Your task to perform on an android device: toggle pop-ups in chrome Image 0: 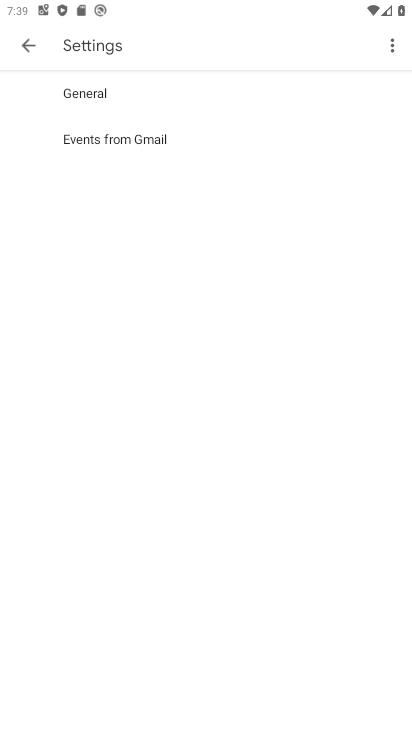
Step 0: press home button
Your task to perform on an android device: toggle pop-ups in chrome Image 1: 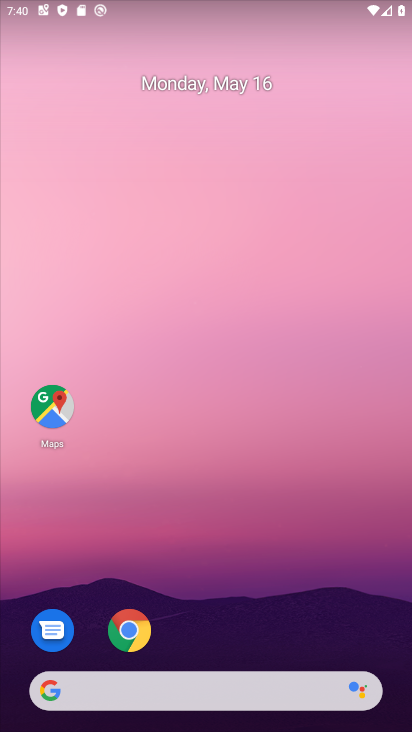
Step 1: click (145, 635)
Your task to perform on an android device: toggle pop-ups in chrome Image 2: 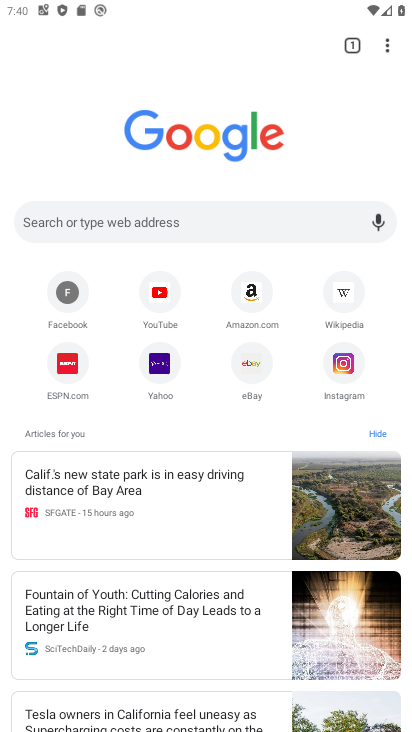
Step 2: click (384, 36)
Your task to perform on an android device: toggle pop-ups in chrome Image 3: 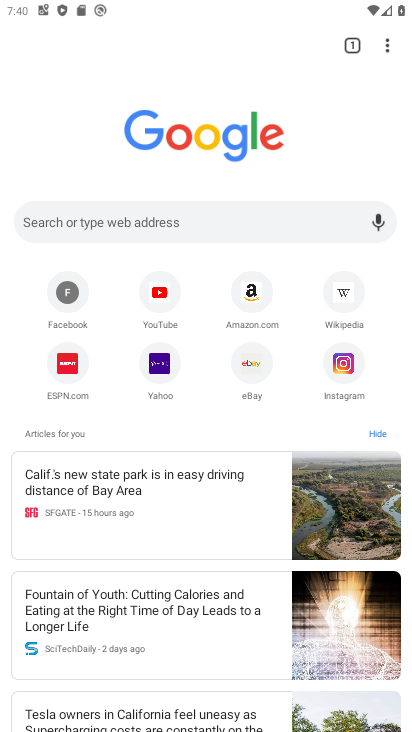
Step 3: click (383, 42)
Your task to perform on an android device: toggle pop-ups in chrome Image 4: 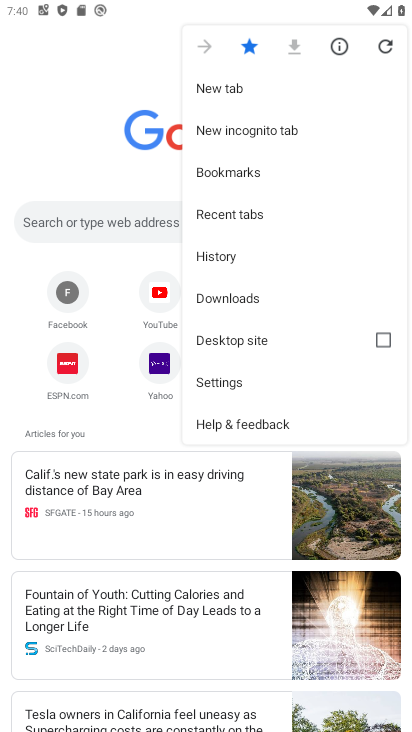
Step 4: click (278, 381)
Your task to perform on an android device: toggle pop-ups in chrome Image 5: 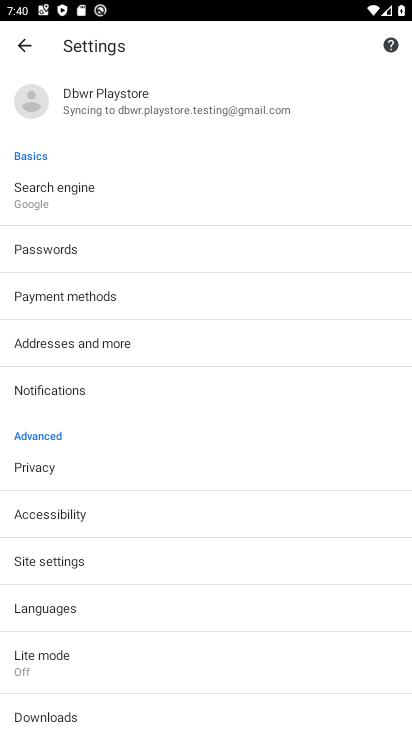
Step 5: drag from (190, 597) to (250, 160)
Your task to perform on an android device: toggle pop-ups in chrome Image 6: 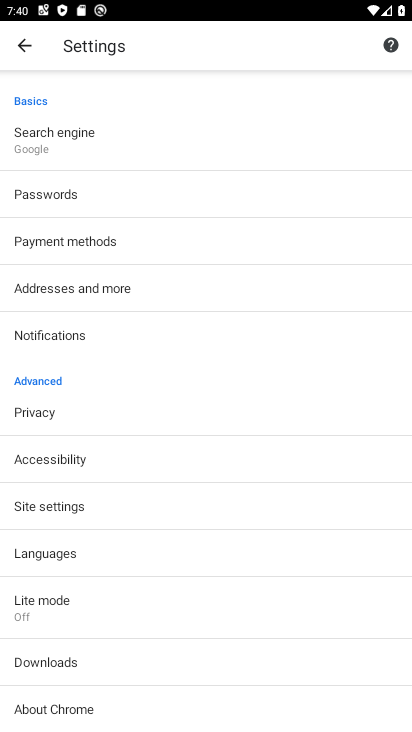
Step 6: drag from (254, 581) to (250, 161)
Your task to perform on an android device: toggle pop-ups in chrome Image 7: 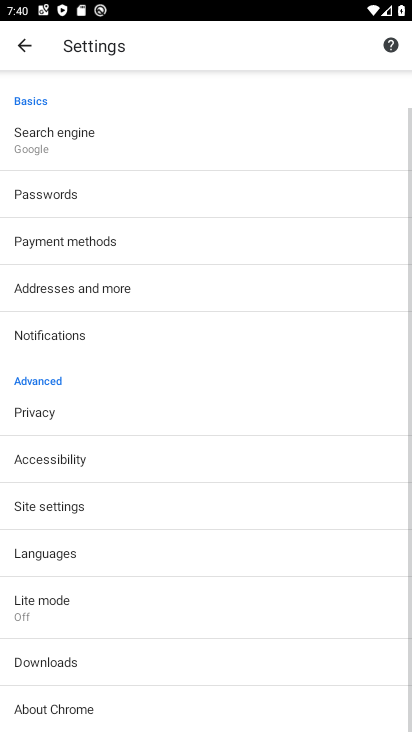
Step 7: click (94, 499)
Your task to perform on an android device: toggle pop-ups in chrome Image 8: 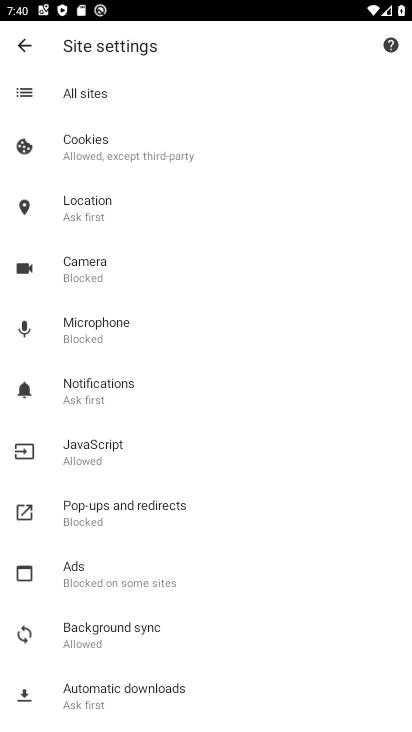
Step 8: drag from (186, 615) to (219, 274)
Your task to perform on an android device: toggle pop-ups in chrome Image 9: 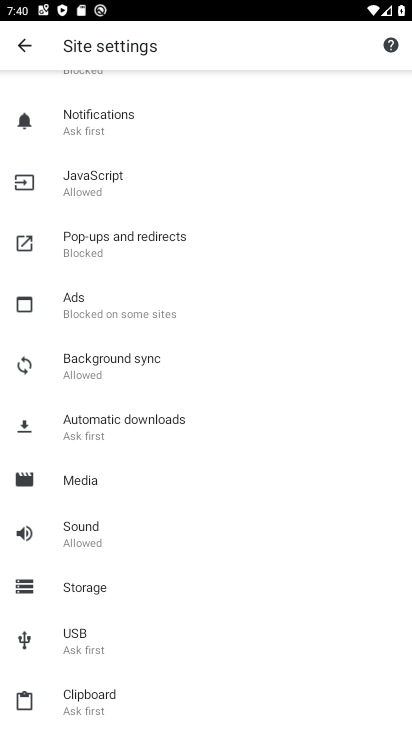
Step 9: drag from (238, 593) to (230, 206)
Your task to perform on an android device: toggle pop-ups in chrome Image 10: 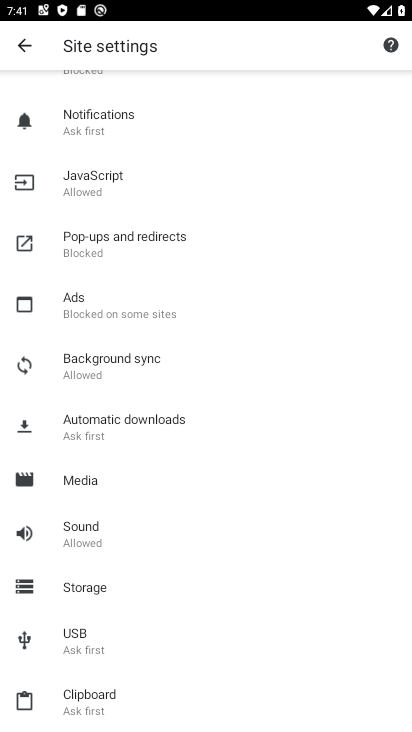
Step 10: click (178, 231)
Your task to perform on an android device: toggle pop-ups in chrome Image 11: 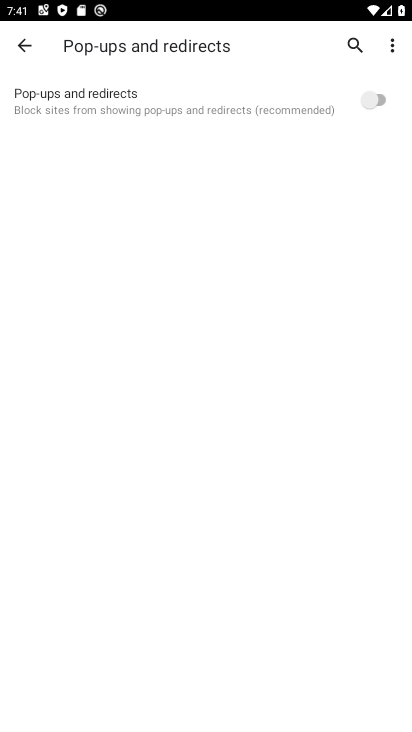
Step 11: click (377, 91)
Your task to perform on an android device: toggle pop-ups in chrome Image 12: 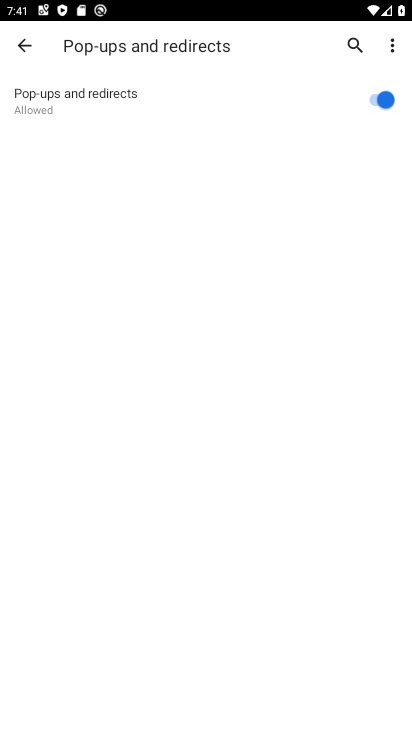
Step 12: task complete